Your task to perform on an android device: toggle priority inbox in the gmail app Image 0: 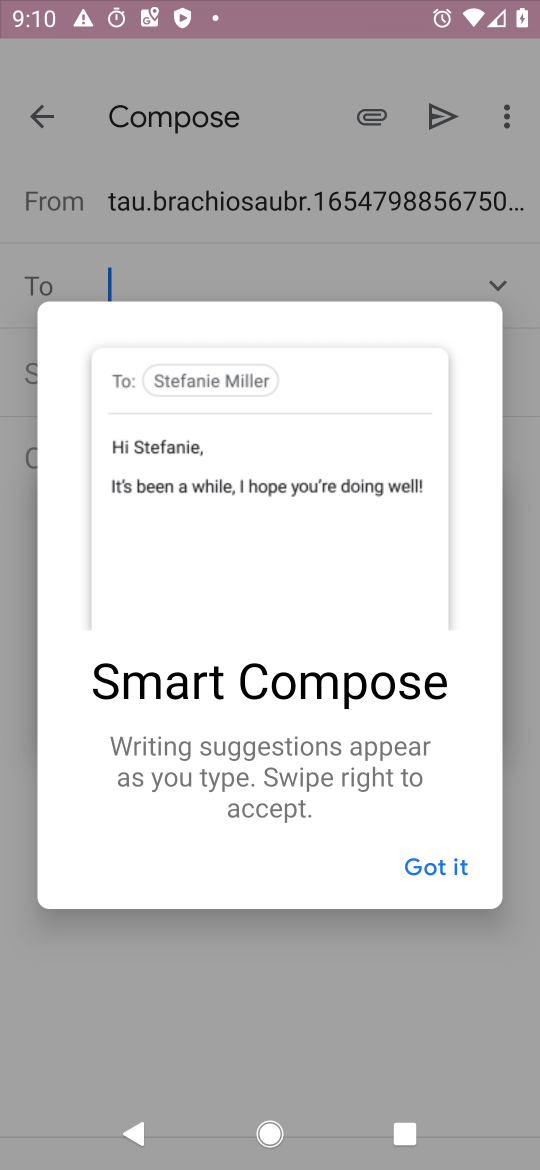
Step 0: press home button
Your task to perform on an android device: toggle priority inbox in the gmail app Image 1: 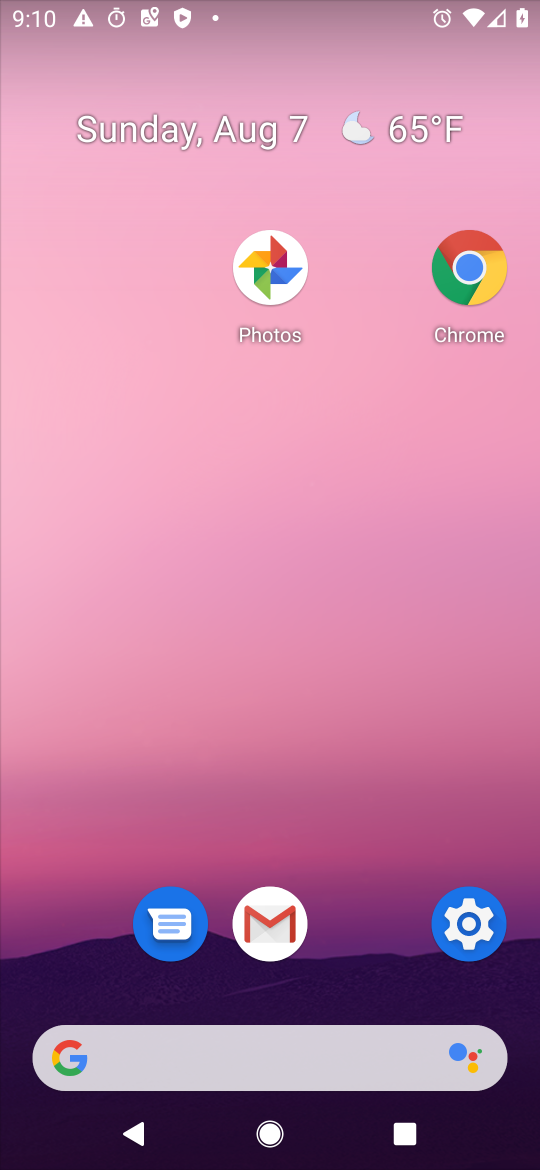
Step 1: drag from (343, 976) to (157, 210)
Your task to perform on an android device: toggle priority inbox in the gmail app Image 2: 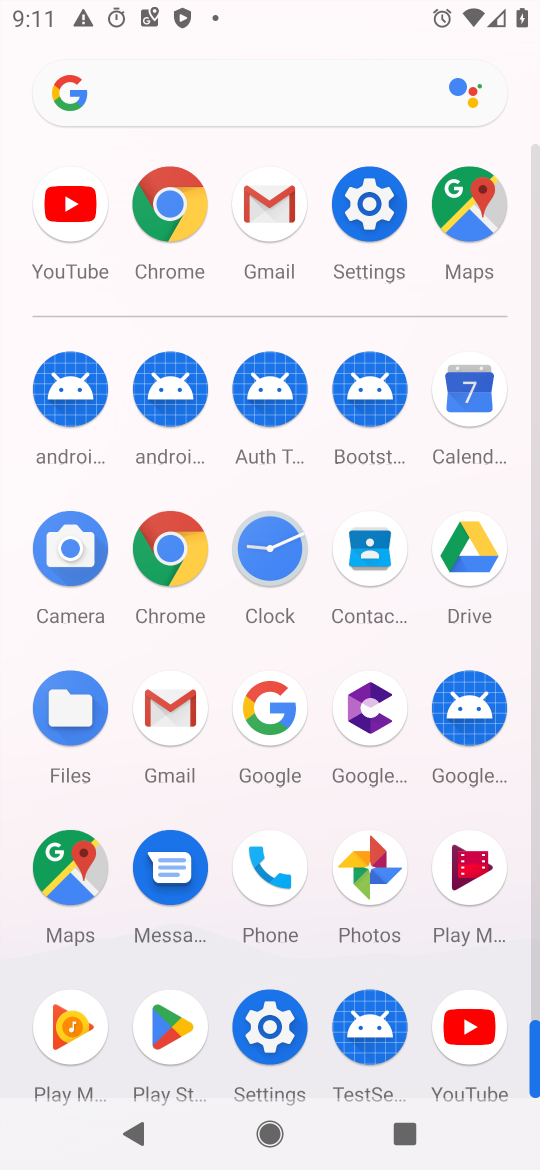
Step 2: click (281, 228)
Your task to perform on an android device: toggle priority inbox in the gmail app Image 3: 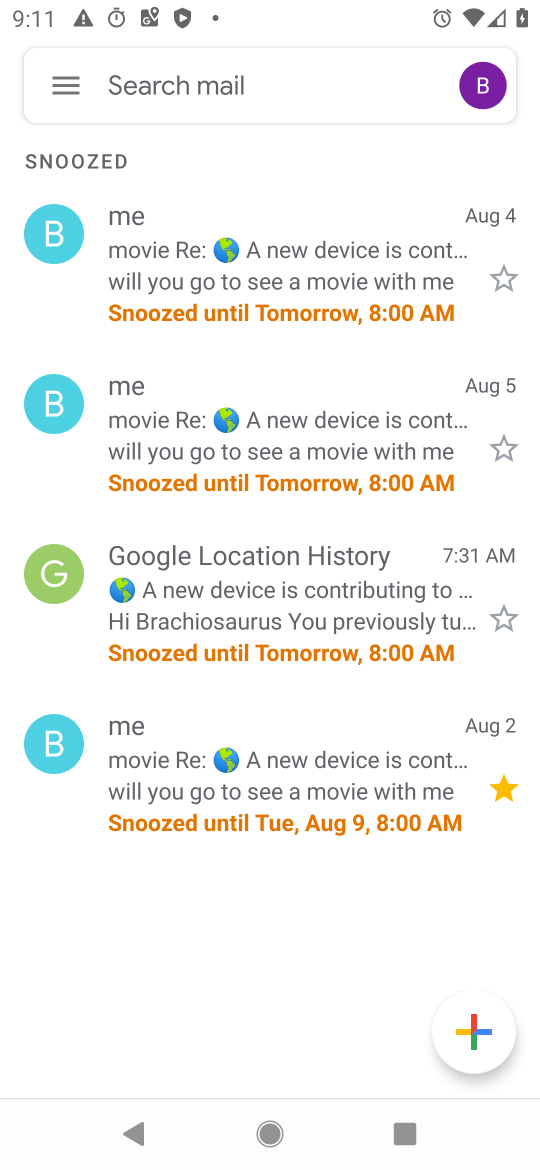
Step 3: click (47, 72)
Your task to perform on an android device: toggle priority inbox in the gmail app Image 4: 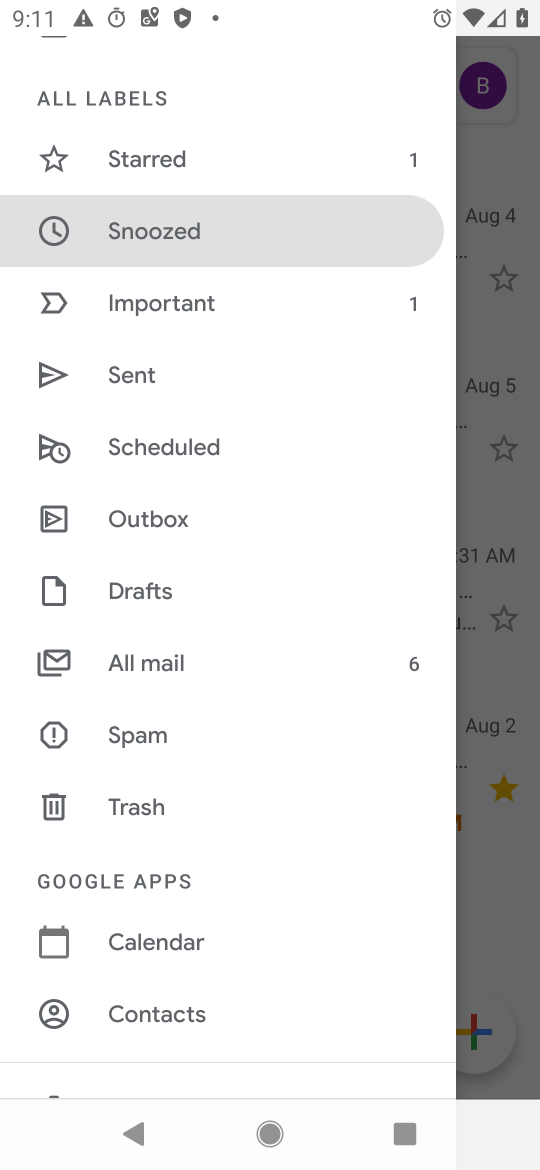
Step 4: drag from (186, 1016) to (248, 870)
Your task to perform on an android device: toggle priority inbox in the gmail app Image 5: 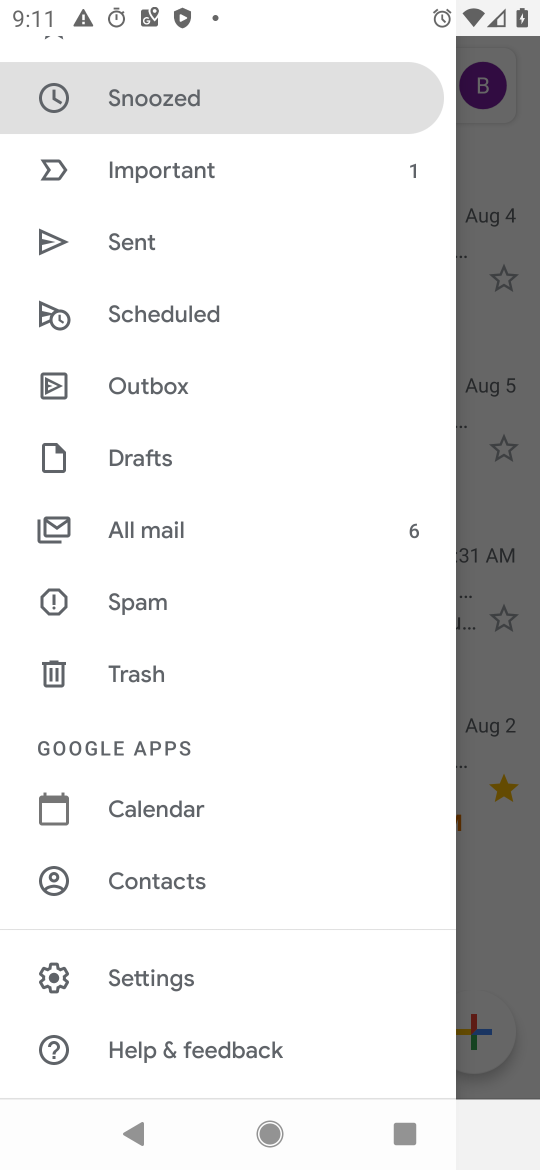
Step 5: click (191, 982)
Your task to perform on an android device: toggle priority inbox in the gmail app Image 6: 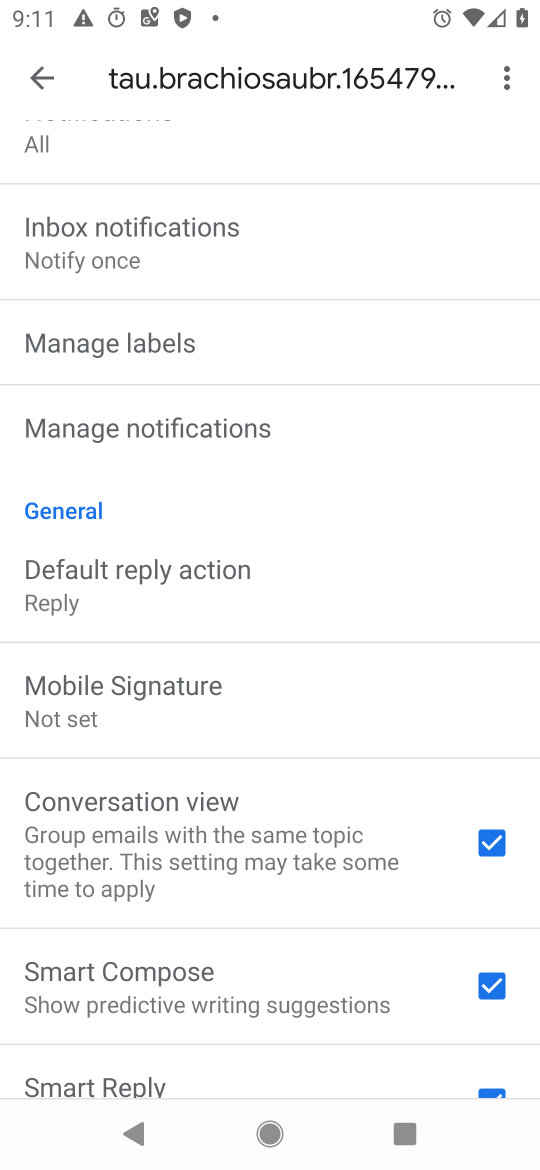
Step 6: drag from (166, 270) to (325, 802)
Your task to perform on an android device: toggle priority inbox in the gmail app Image 7: 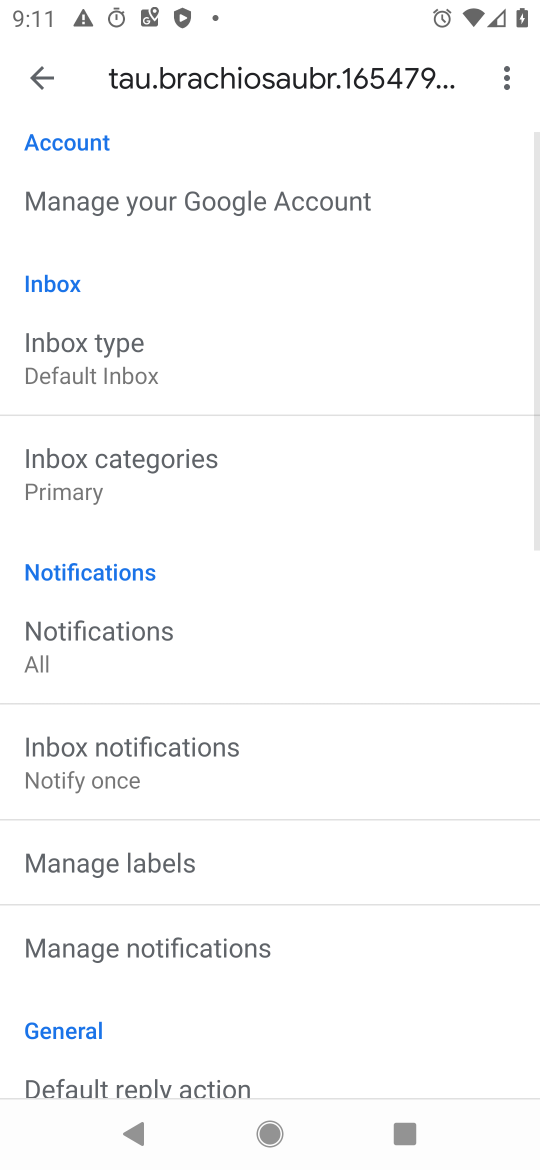
Step 7: drag from (243, 288) to (280, 668)
Your task to perform on an android device: toggle priority inbox in the gmail app Image 8: 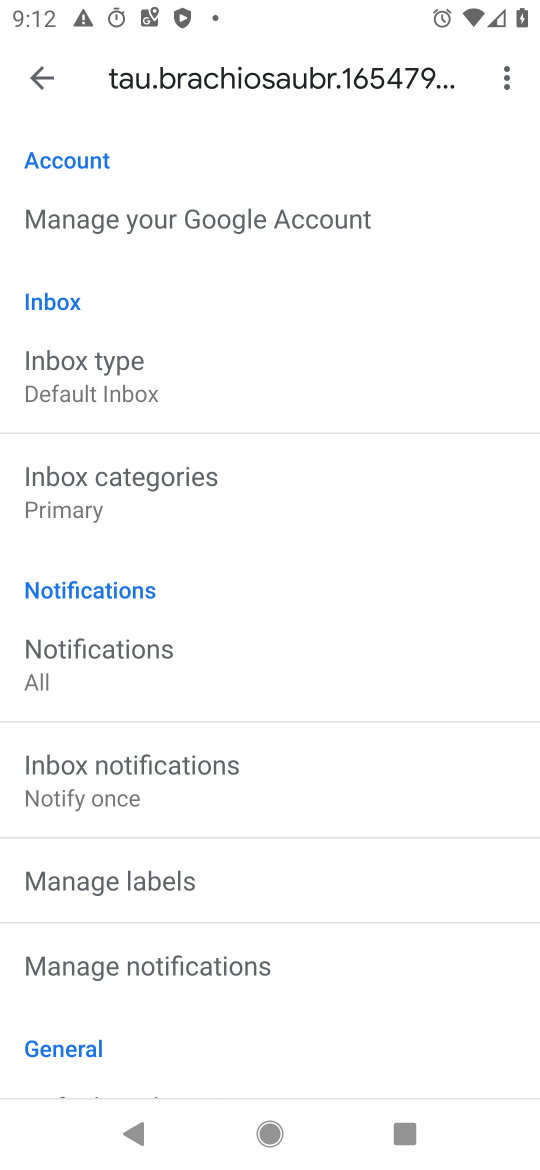
Step 8: click (171, 364)
Your task to perform on an android device: toggle priority inbox in the gmail app Image 9: 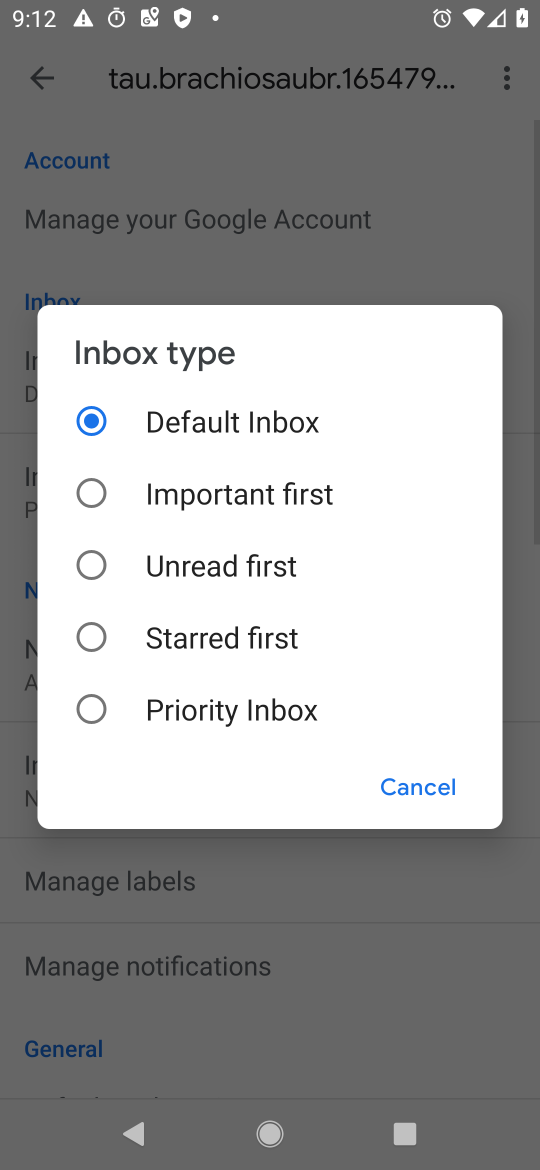
Step 9: click (239, 701)
Your task to perform on an android device: toggle priority inbox in the gmail app Image 10: 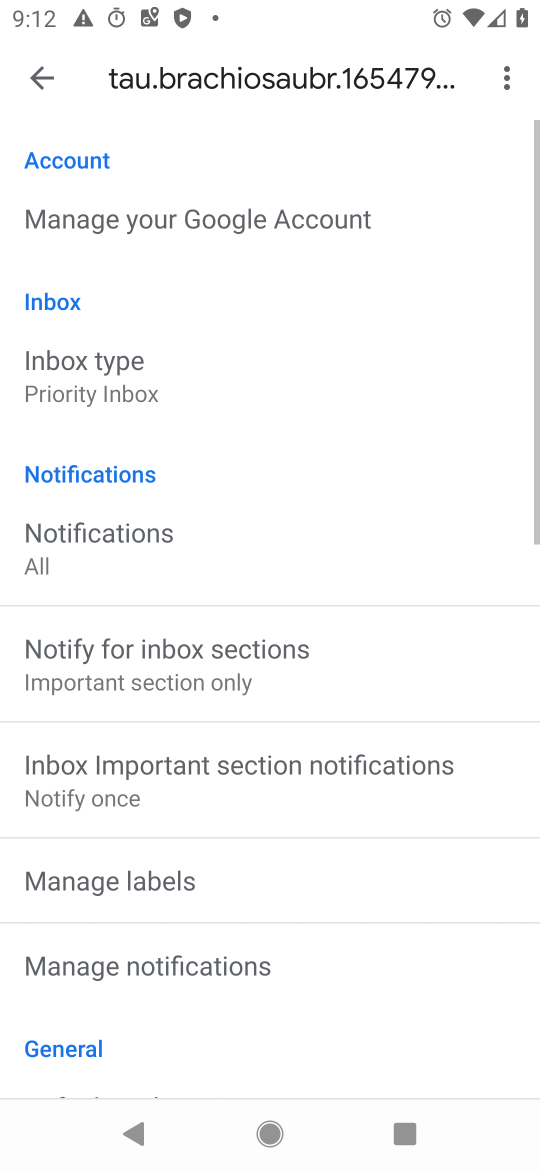
Step 10: task complete